Your task to perform on an android device: Go to ESPN.com Image 0: 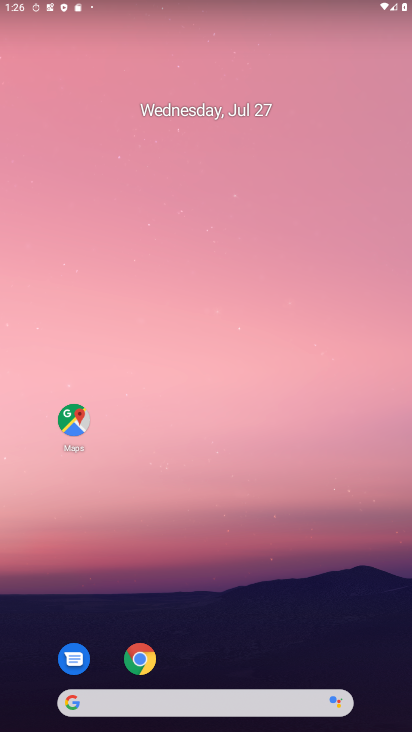
Step 0: click (153, 661)
Your task to perform on an android device: Go to ESPN.com Image 1: 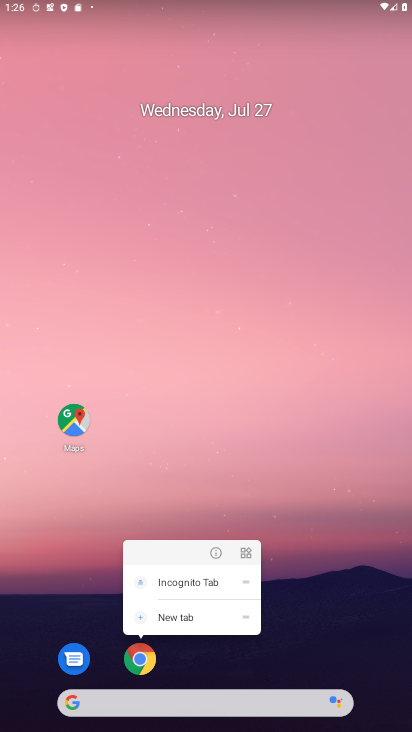
Step 1: click (153, 661)
Your task to perform on an android device: Go to ESPN.com Image 2: 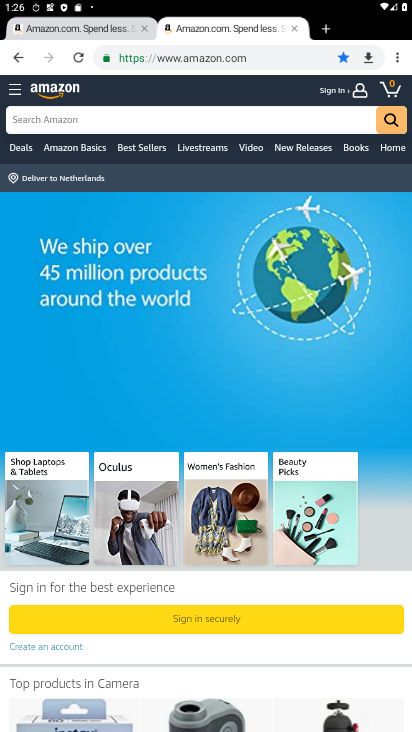
Step 2: click (272, 48)
Your task to perform on an android device: Go to ESPN.com Image 3: 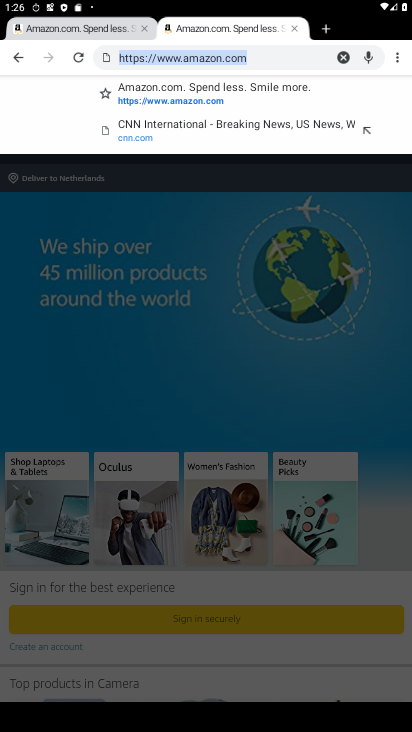
Step 3: type " ESPN.com"
Your task to perform on an android device: Go to ESPN.com Image 4: 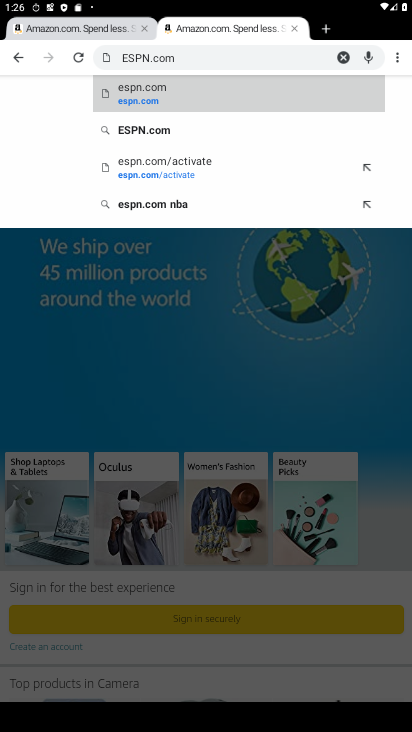
Step 4: click (146, 93)
Your task to perform on an android device: Go to ESPN.com Image 5: 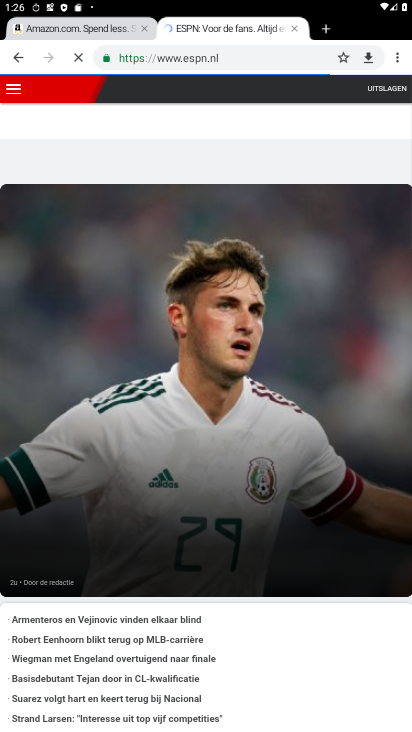
Step 5: task complete